Your task to perform on an android device: add a contact in the contacts app Image 0: 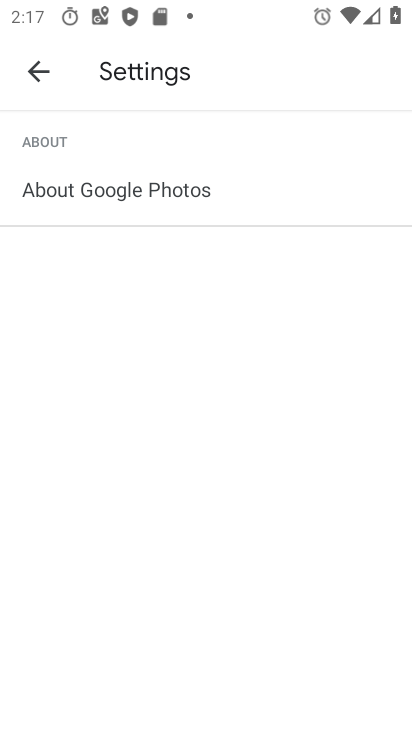
Step 0: press home button
Your task to perform on an android device: add a contact in the contacts app Image 1: 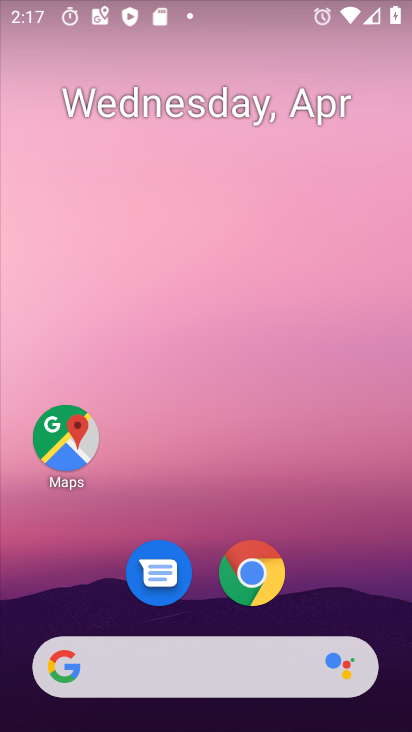
Step 1: drag from (356, 584) to (358, 207)
Your task to perform on an android device: add a contact in the contacts app Image 2: 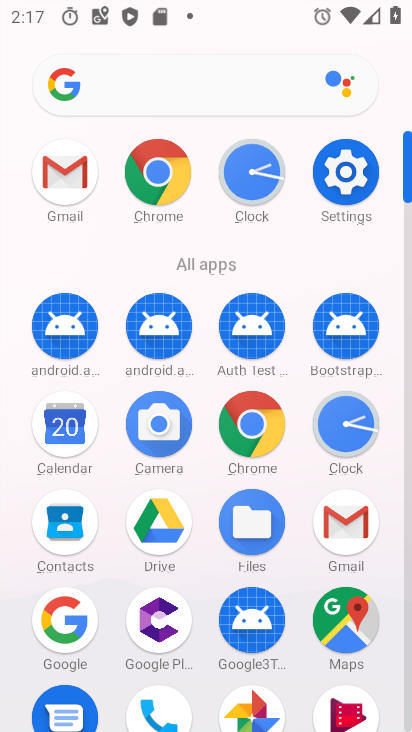
Step 2: click (51, 529)
Your task to perform on an android device: add a contact in the contacts app Image 3: 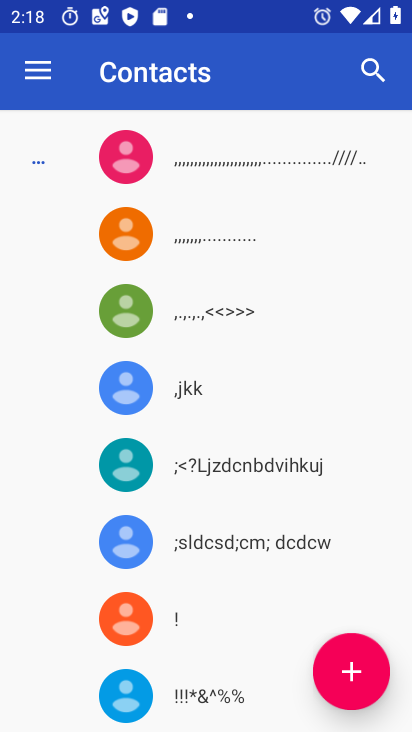
Step 3: click (354, 679)
Your task to perform on an android device: add a contact in the contacts app Image 4: 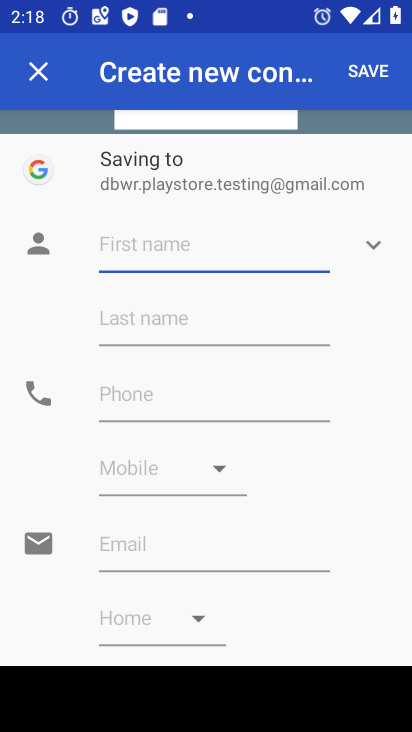
Step 4: type "lol"
Your task to perform on an android device: add a contact in the contacts app Image 5: 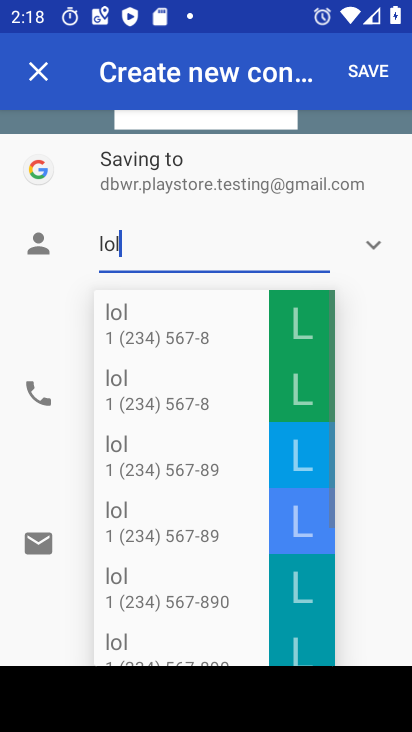
Step 5: click (377, 347)
Your task to perform on an android device: add a contact in the contacts app Image 6: 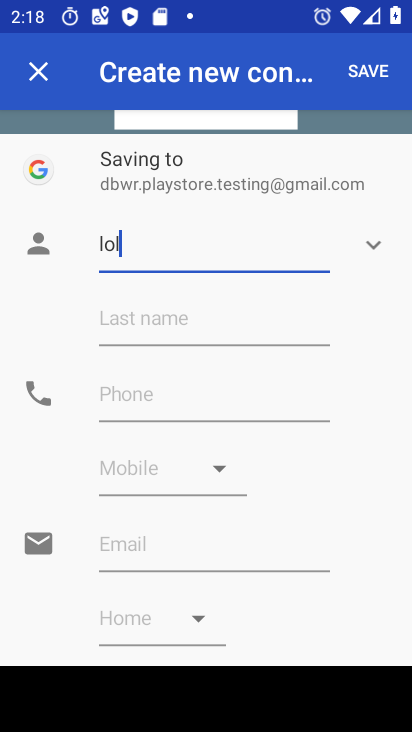
Step 6: click (208, 411)
Your task to perform on an android device: add a contact in the contacts app Image 7: 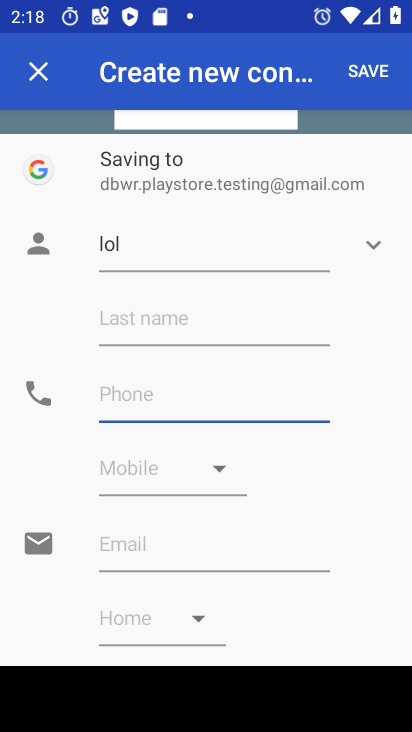
Step 7: type "1234567890"
Your task to perform on an android device: add a contact in the contacts app Image 8: 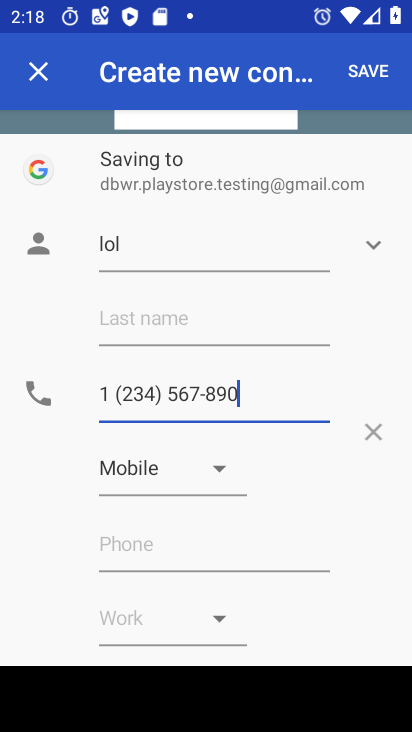
Step 8: click (361, 71)
Your task to perform on an android device: add a contact in the contacts app Image 9: 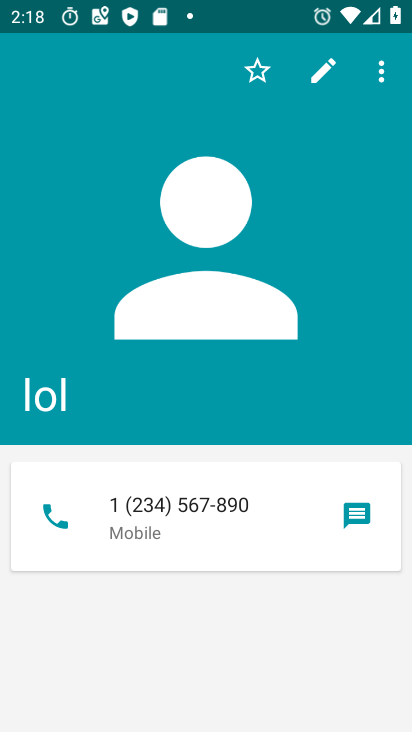
Step 9: task complete